Your task to perform on an android device: find photos in the google photos app Image 0: 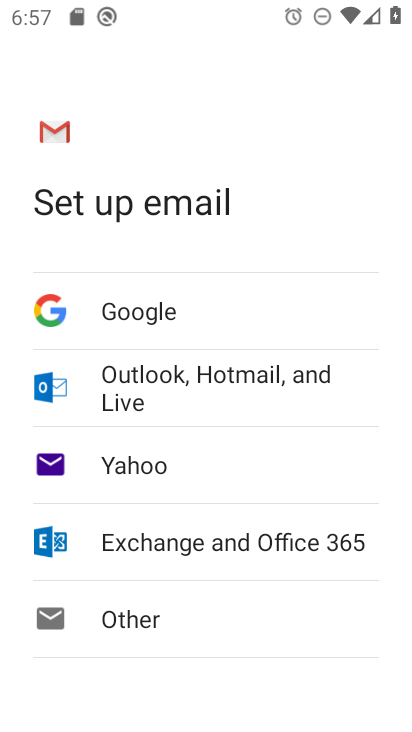
Step 0: press home button
Your task to perform on an android device: find photos in the google photos app Image 1: 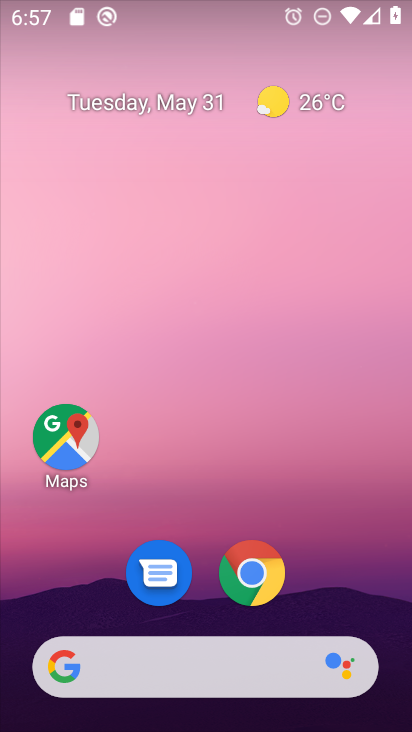
Step 1: drag from (384, 650) to (259, 29)
Your task to perform on an android device: find photos in the google photos app Image 2: 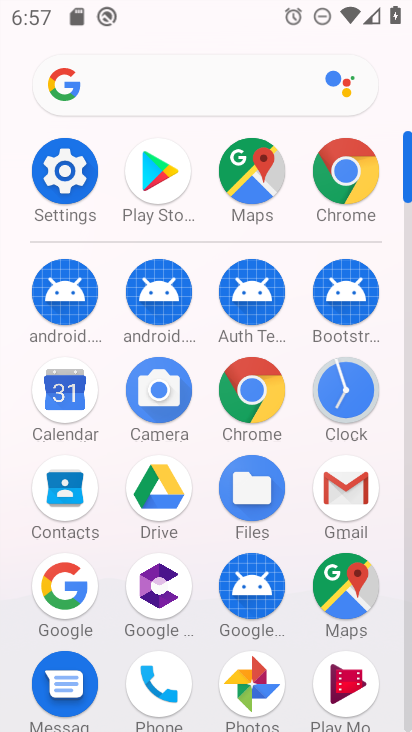
Step 2: click (232, 670)
Your task to perform on an android device: find photos in the google photos app Image 3: 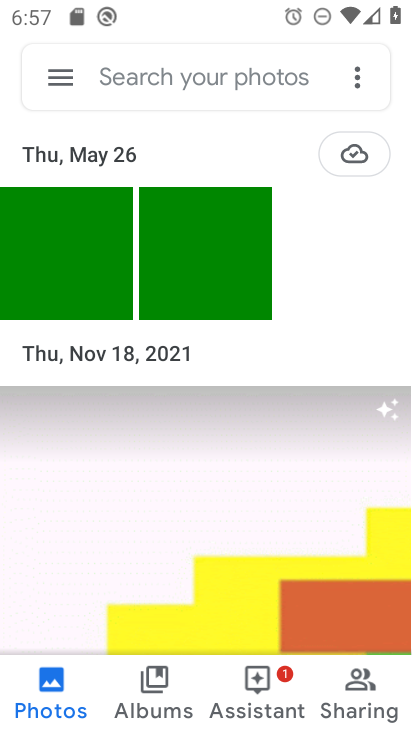
Step 3: task complete